Your task to perform on an android device: Open calendar and show me the fourth week of next month Image 0: 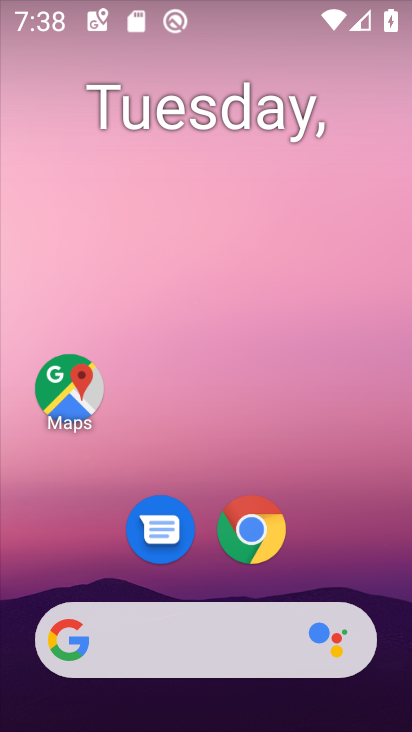
Step 0: drag from (192, 566) to (275, 56)
Your task to perform on an android device: Open calendar and show me the fourth week of next month Image 1: 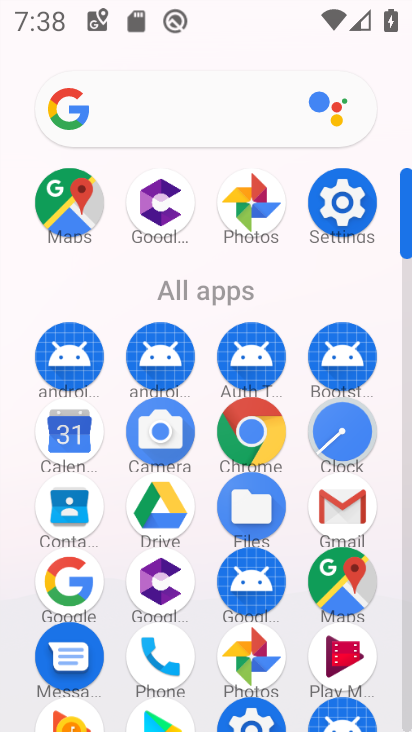
Step 1: click (63, 433)
Your task to perform on an android device: Open calendar and show me the fourth week of next month Image 2: 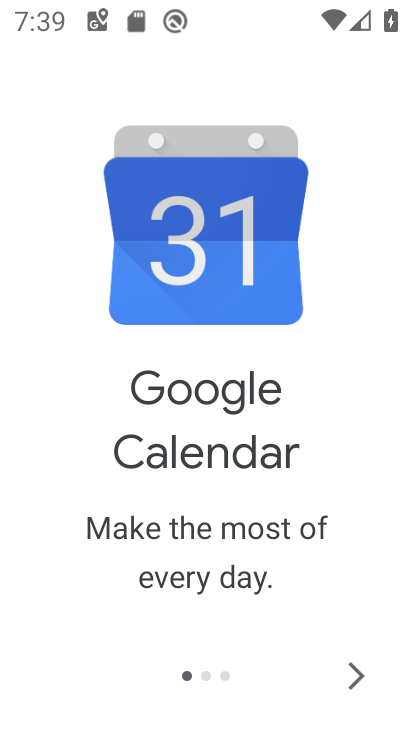
Step 2: click (363, 682)
Your task to perform on an android device: Open calendar and show me the fourth week of next month Image 3: 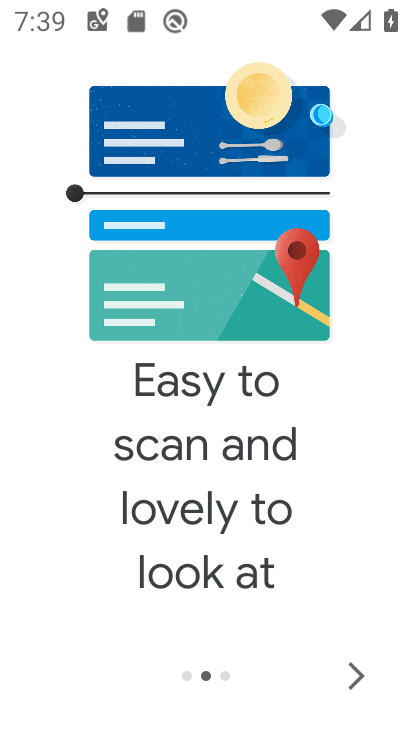
Step 3: click (361, 680)
Your task to perform on an android device: Open calendar and show me the fourth week of next month Image 4: 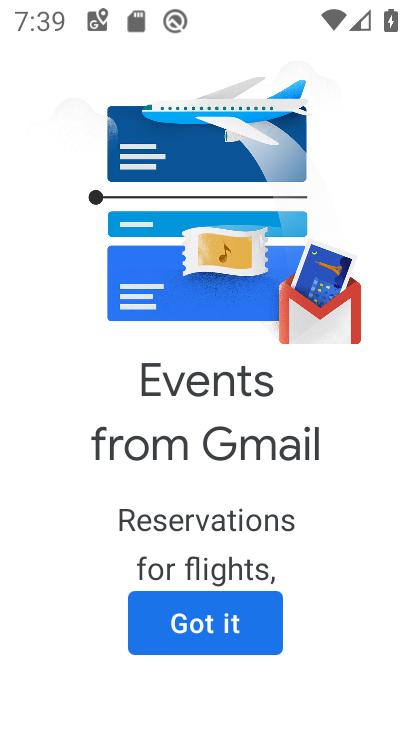
Step 4: click (218, 618)
Your task to perform on an android device: Open calendar and show me the fourth week of next month Image 5: 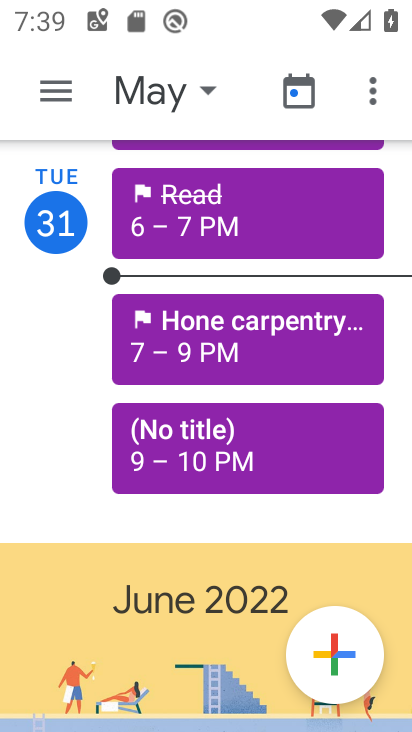
Step 5: click (171, 87)
Your task to perform on an android device: Open calendar and show me the fourth week of next month Image 6: 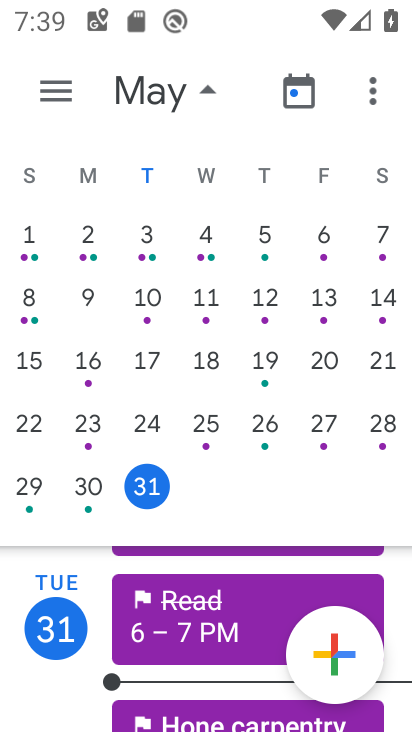
Step 6: drag from (396, 340) to (10, 301)
Your task to perform on an android device: Open calendar and show me the fourth week of next month Image 7: 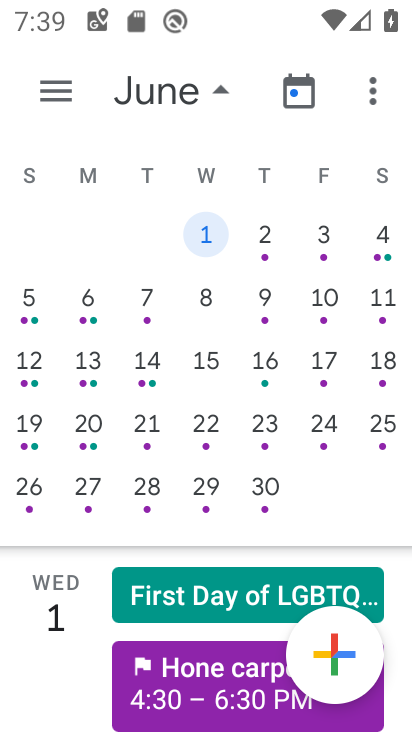
Step 7: click (89, 448)
Your task to perform on an android device: Open calendar and show me the fourth week of next month Image 8: 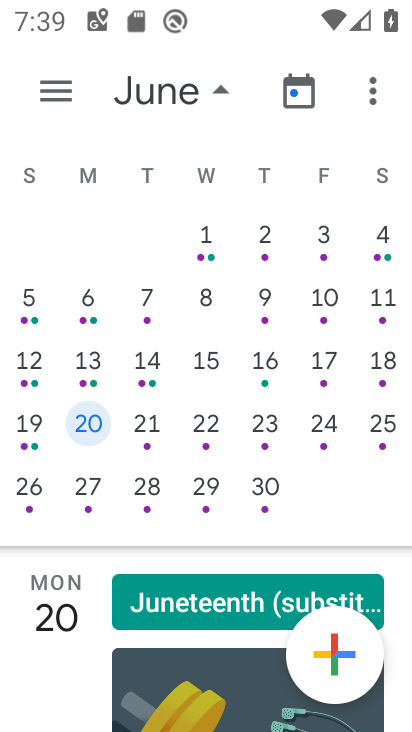
Step 8: task complete